Your task to perform on an android device: What's the weather going to be this weekend? Image 0: 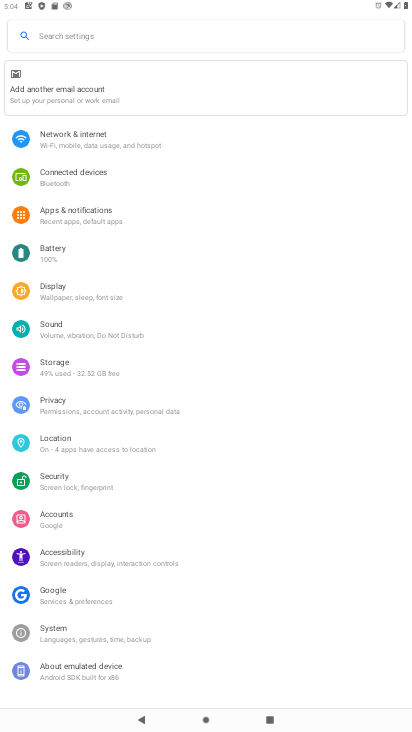
Step 0: press home button
Your task to perform on an android device: What's the weather going to be this weekend? Image 1: 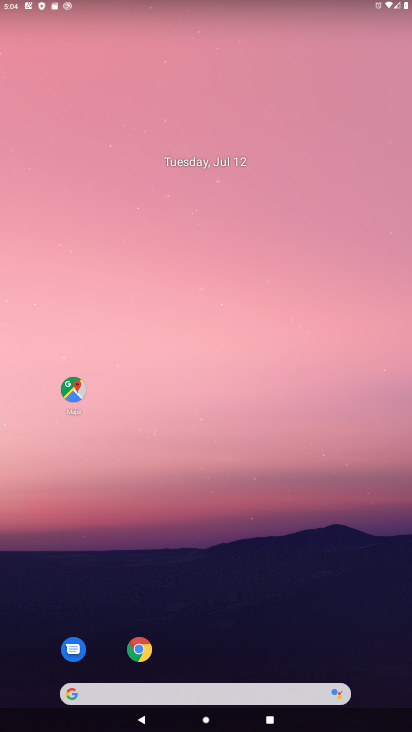
Step 1: drag from (203, 696) to (246, 350)
Your task to perform on an android device: What's the weather going to be this weekend? Image 2: 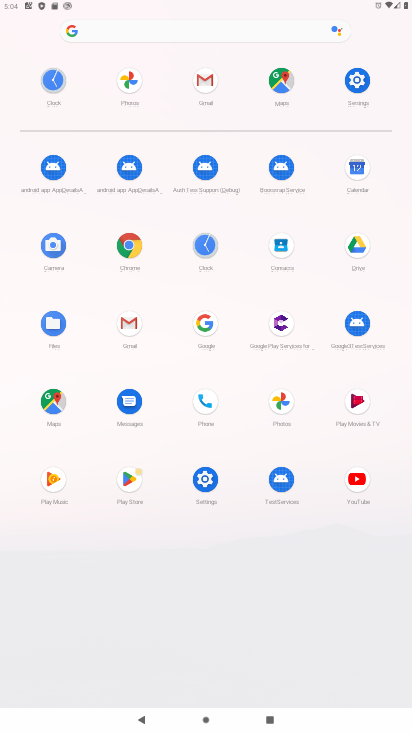
Step 2: click (204, 324)
Your task to perform on an android device: What's the weather going to be this weekend? Image 3: 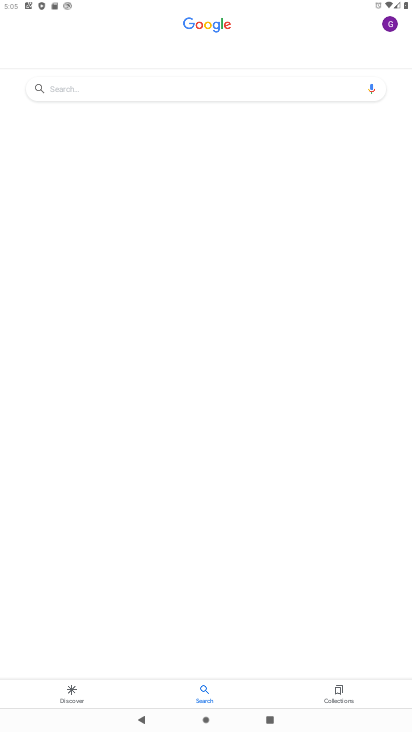
Step 3: click (235, 94)
Your task to perform on an android device: What's the weather going to be this weekend? Image 4: 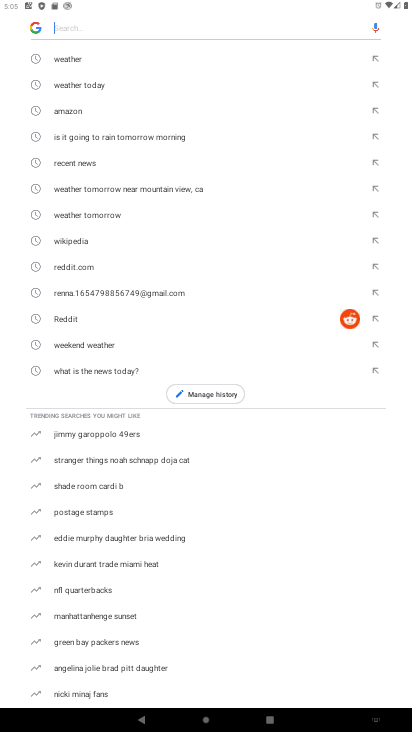
Step 4: type "What's the weather going to be this weekend?"
Your task to perform on an android device: What's the weather going to be this weekend? Image 5: 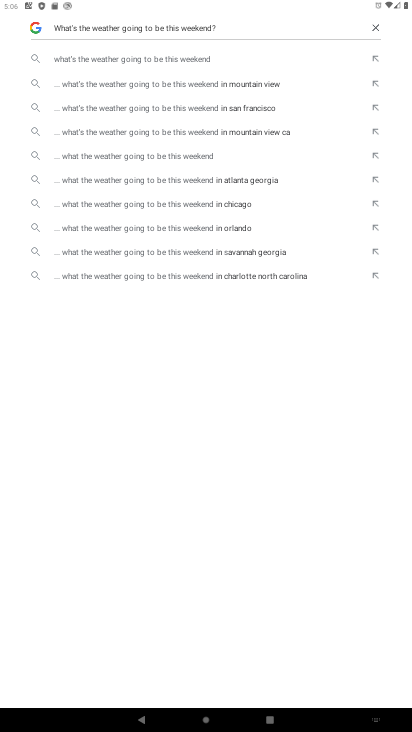
Step 5: click (201, 58)
Your task to perform on an android device: What's the weather going to be this weekend? Image 6: 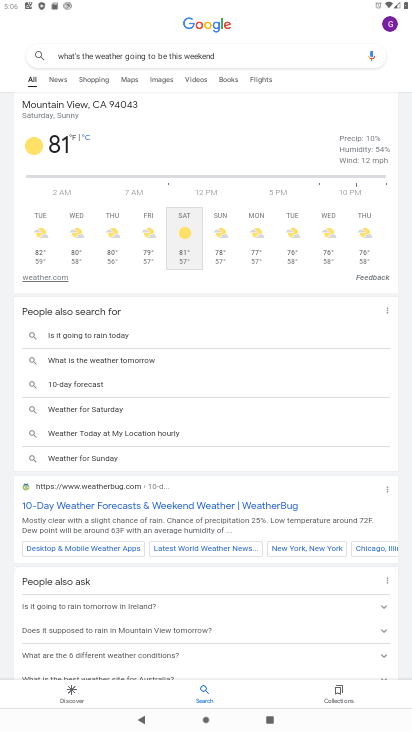
Step 6: task complete